Your task to perform on an android device: turn notification dots on Image 0: 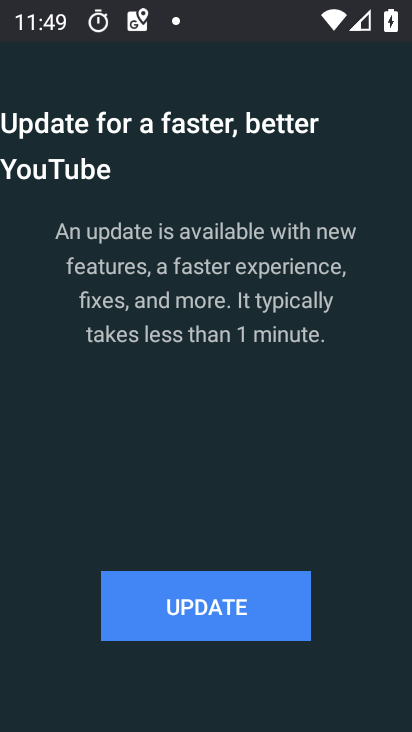
Step 0: press home button
Your task to perform on an android device: turn notification dots on Image 1: 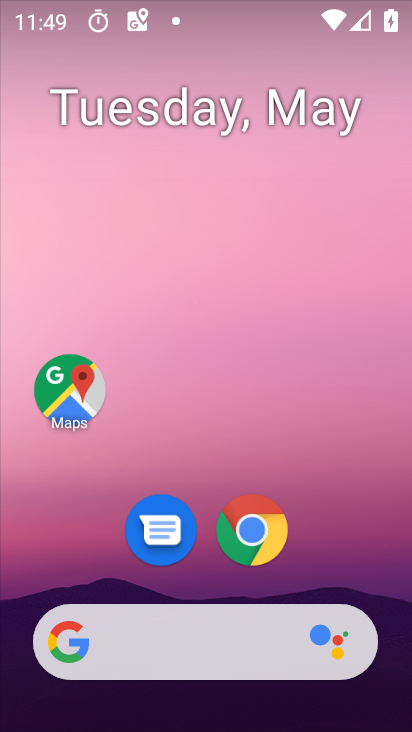
Step 1: drag from (140, 648) to (354, 48)
Your task to perform on an android device: turn notification dots on Image 2: 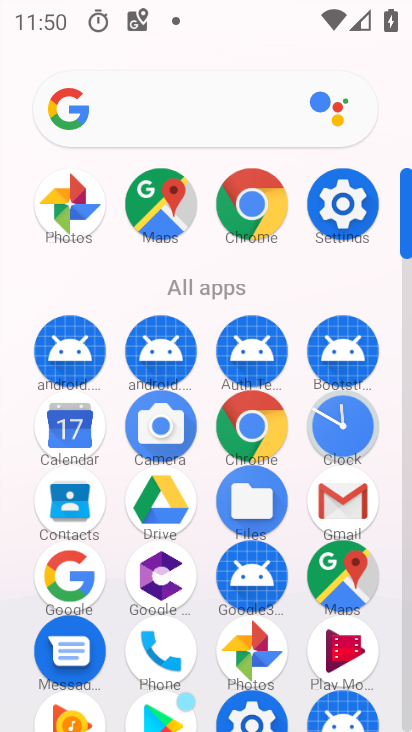
Step 2: click (334, 208)
Your task to perform on an android device: turn notification dots on Image 3: 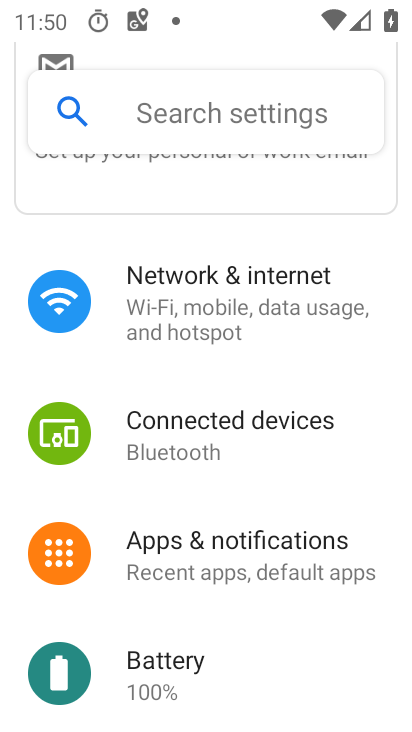
Step 3: click (341, 561)
Your task to perform on an android device: turn notification dots on Image 4: 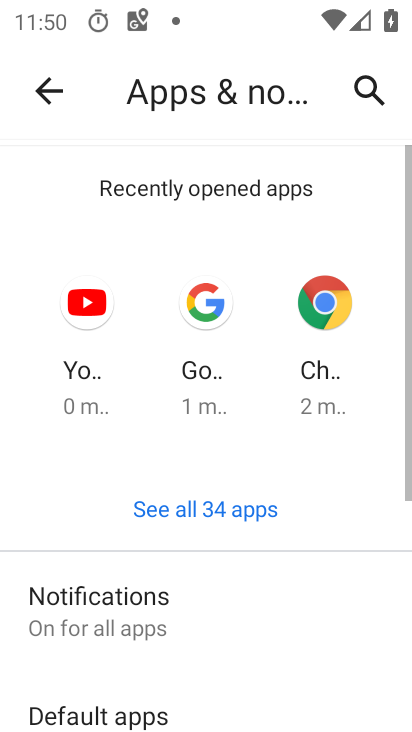
Step 4: drag from (263, 651) to (311, 83)
Your task to perform on an android device: turn notification dots on Image 5: 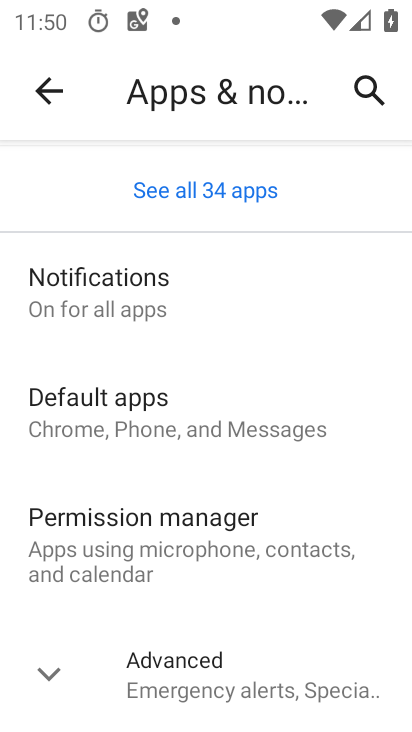
Step 5: click (185, 260)
Your task to perform on an android device: turn notification dots on Image 6: 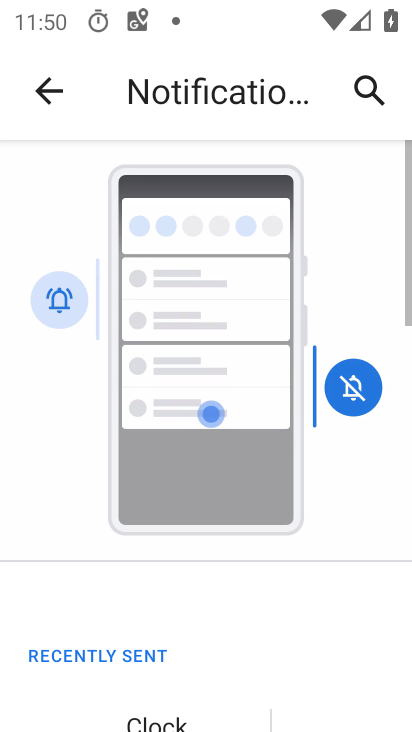
Step 6: drag from (245, 599) to (252, 54)
Your task to perform on an android device: turn notification dots on Image 7: 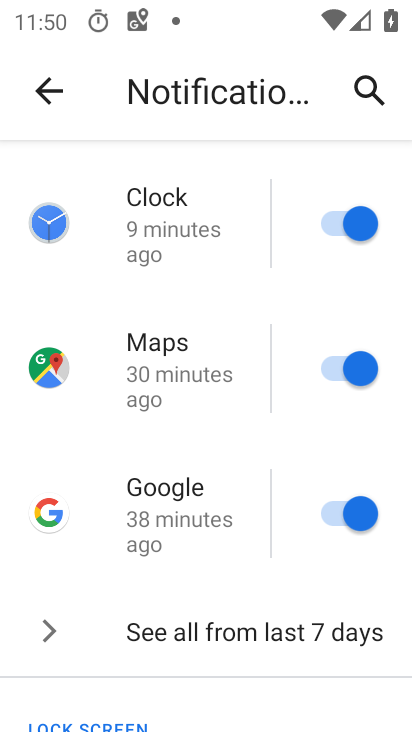
Step 7: drag from (237, 587) to (228, 218)
Your task to perform on an android device: turn notification dots on Image 8: 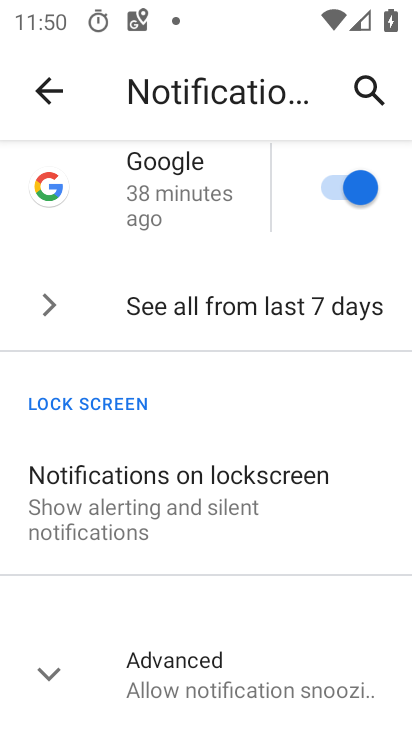
Step 8: click (238, 665)
Your task to perform on an android device: turn notification dots on Image 9: 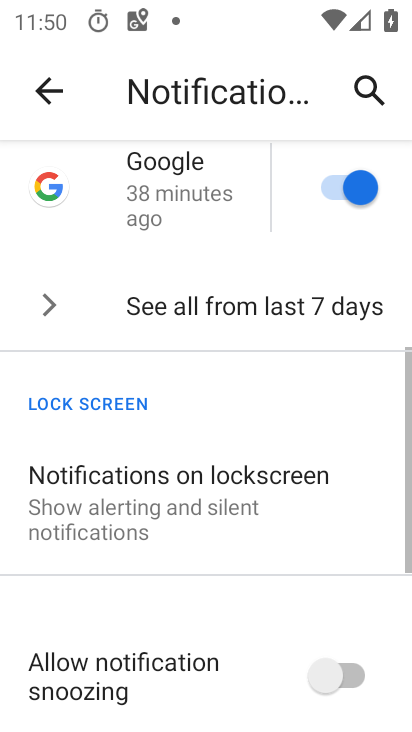
Step 9: task complete